Your task to perform on an android device: Show me productivity apps on the Play Store Image 0: 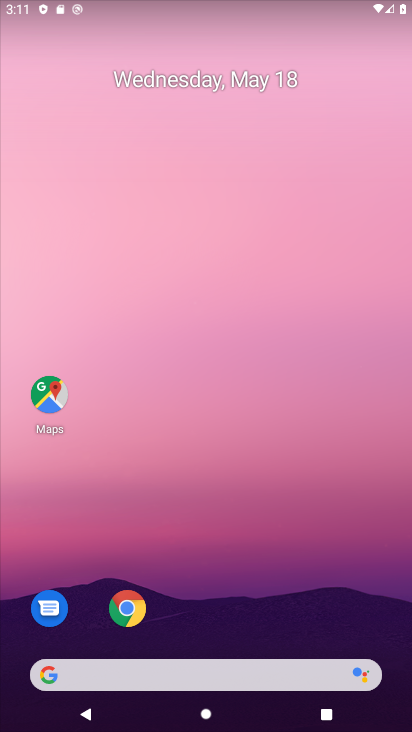
Step 0: drag from (172, 624) to (294, 2)
Your task to perform on an android device: Show me productivity apps on the Play Store Image 1: 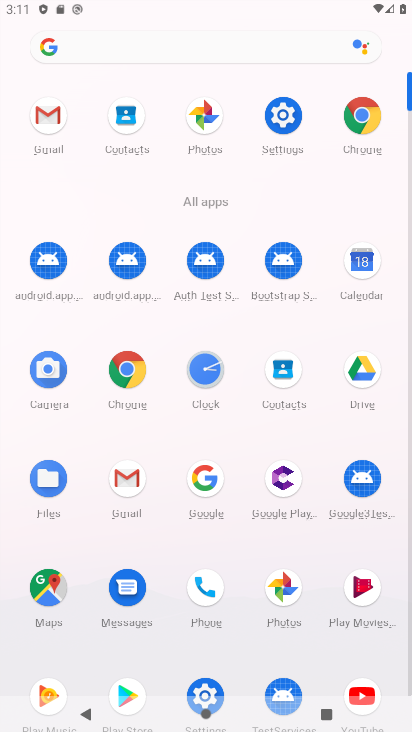
Step 1: drag from (148, 659) to (157, 210)
Your task to perform on an android device: Show me productivity apps on the Play Store Image 2: 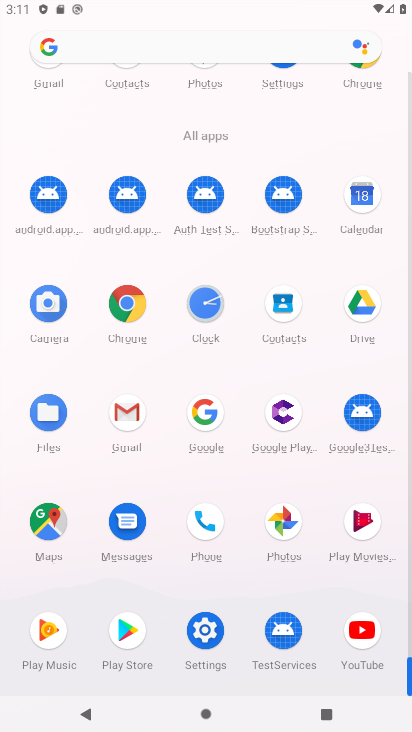
Step 2: click (123, 633)
Your task to perform on an android device: Show me productivity apps on the Play Store Image 3: 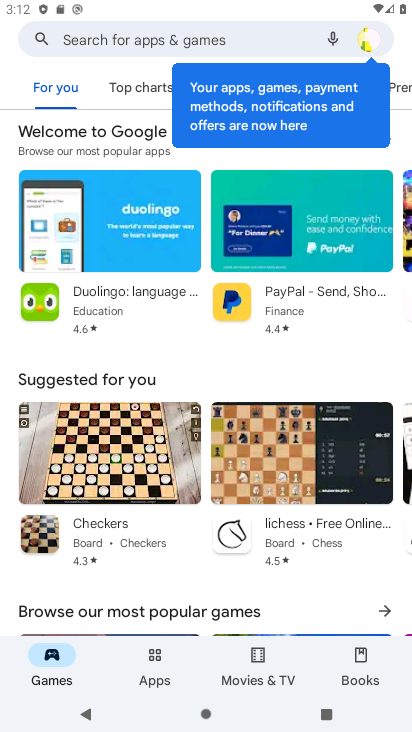
Step 3: click (143, 658)
Your task to perform on an android device: Show me productivity apps on the Play Store Image 4: 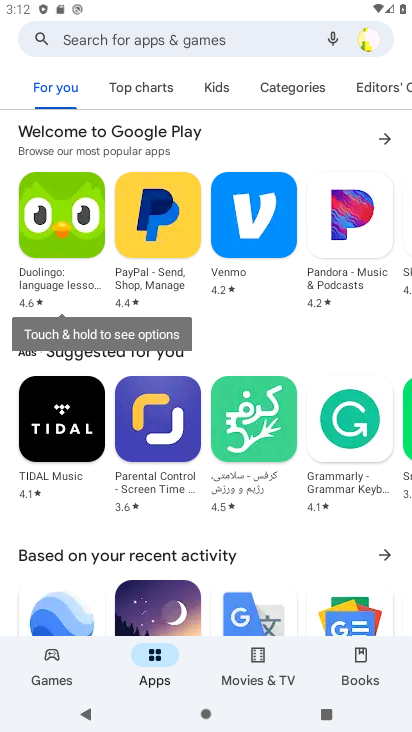
Step 4: click (322, 83)
Your task to perform on an android device: Show me productivity apps on the Play Store Image 5: 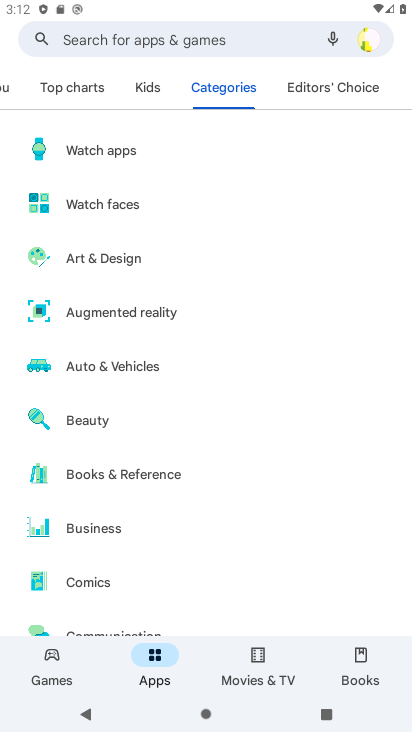
Step 5: drag from (88, 585) to (190, 192)
Your task to perform on an android device: Show me productivity apps on the Play Store Image 6: 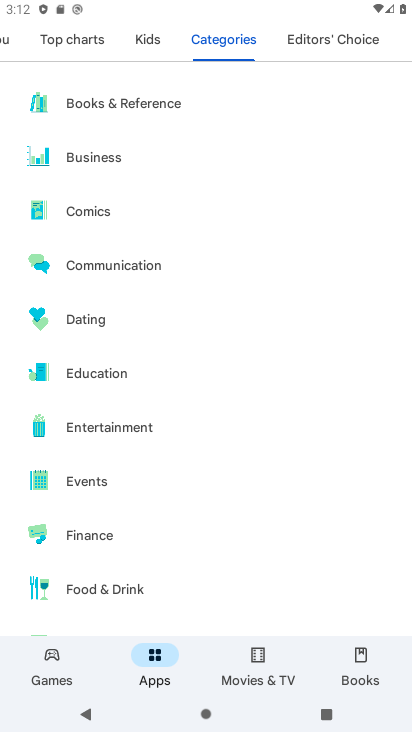
Step 6: drag from (114, 594) to (228, 204)
Your task to perform on an android device: Show me productivity apps on the Play Store Image 7: 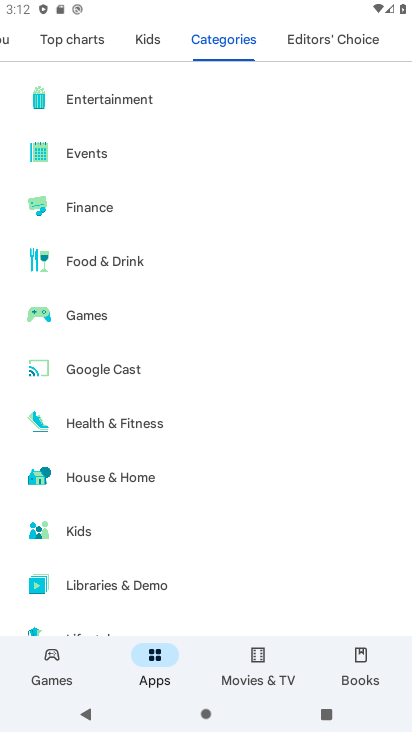
Step 7: drag from (143, 492) to (209, 62)
Your task to perform on an android device: Show me productivity apps on the Play Store Image 8: 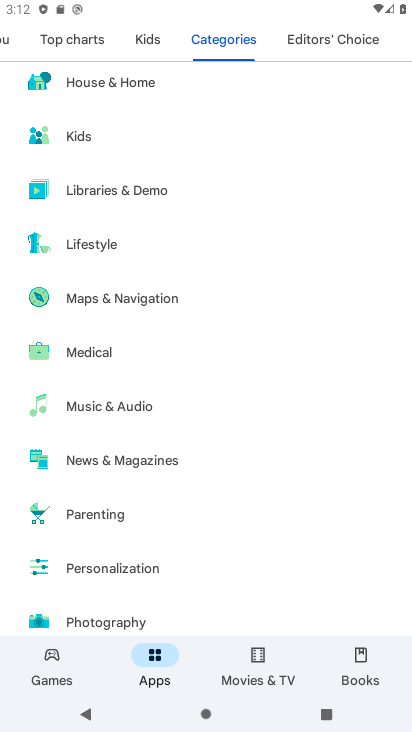
Step 8: drag from (128, 579) to (196, 242)
Your task to perform on an android device: Show me productivity apps on the Play Store Image 9: 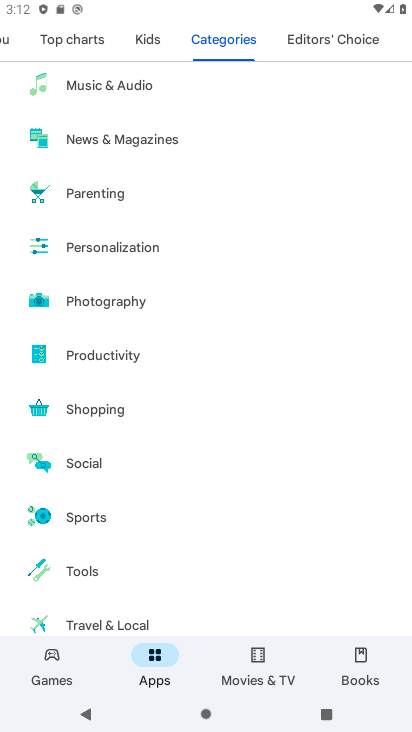
Step 9: click (115, 364)
Your task to perform on an android device: Show me productivity apps on the Play Store Image 10: 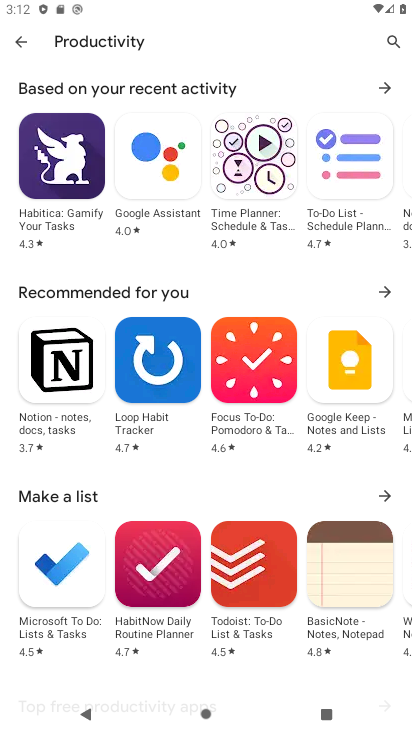
Step 10: task complete